Your task to perform on an android device: check google app version Image 0: 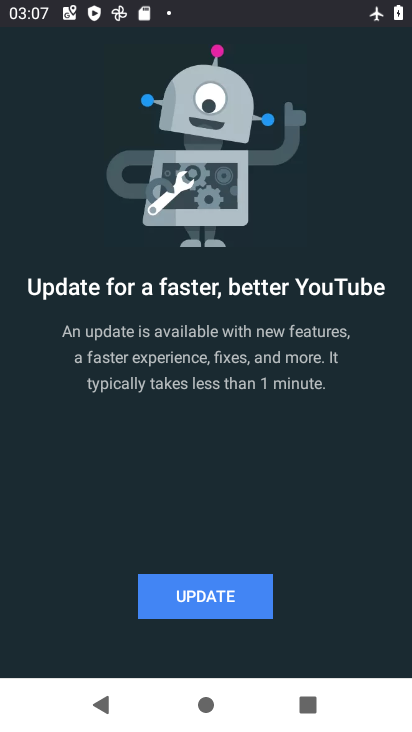
Step 0: drag from (331, 604) to (364, 348)
Your task to perform on an android device: check google app version Image 1: 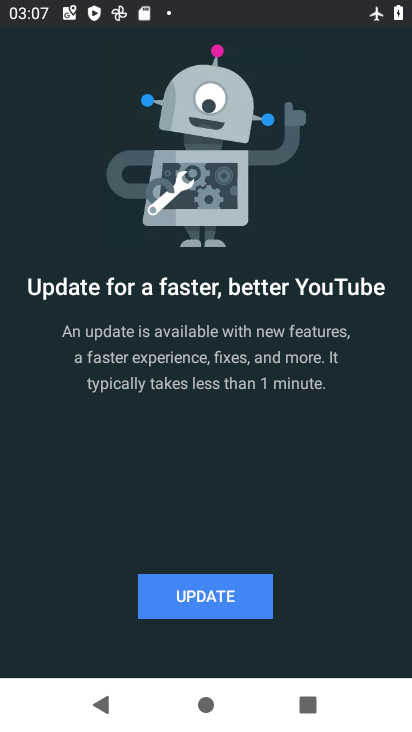
Step 1: drag from (330, 465) to (337, 299)
Your task to perform on an android device: check google app version Image 2: 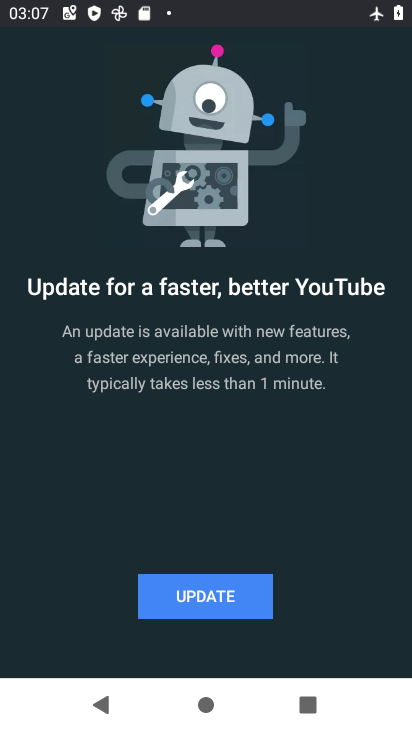
Step 2: press home button
Your task to perform on an android device: check google app version Image 3: 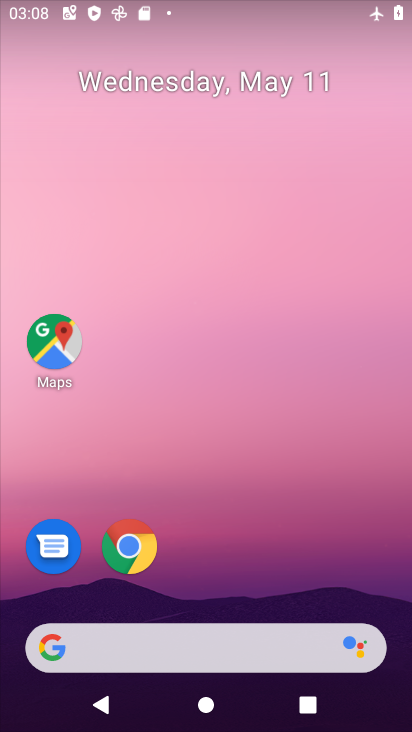
Step 3: drag from (220, 583) to (305, 126)
Your task to perform on an android device: check google app version Image 4: 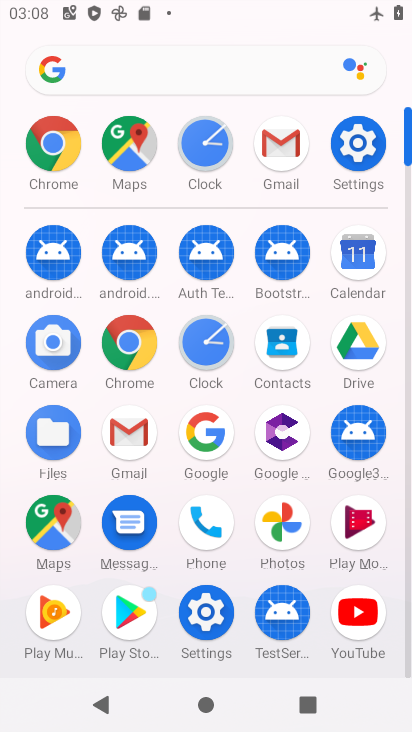
Step 4: click (207, 432)
Your task to perform on an android device: check google app version Image 5: 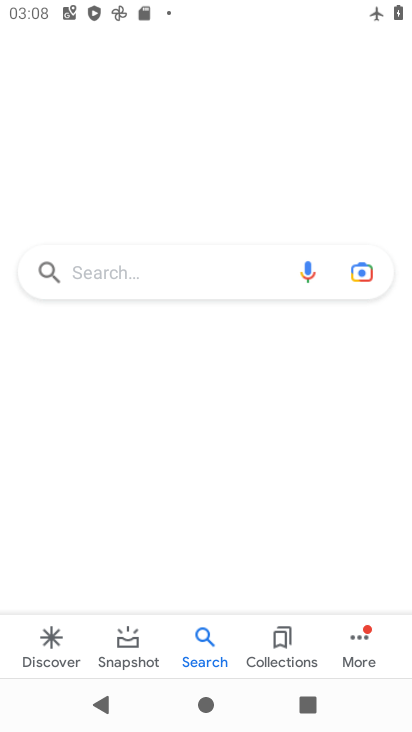
Step 5: drag from (208, 549) to (275, 345)
Your task to perform on an android device: check google app version Image 6: 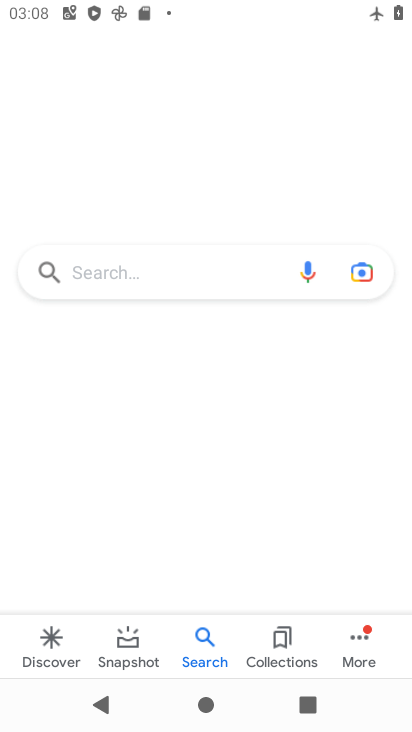
Step 6: drag from (354, 643) to (142, 408)
Your task to perform on an android device: check google app version Image 7: 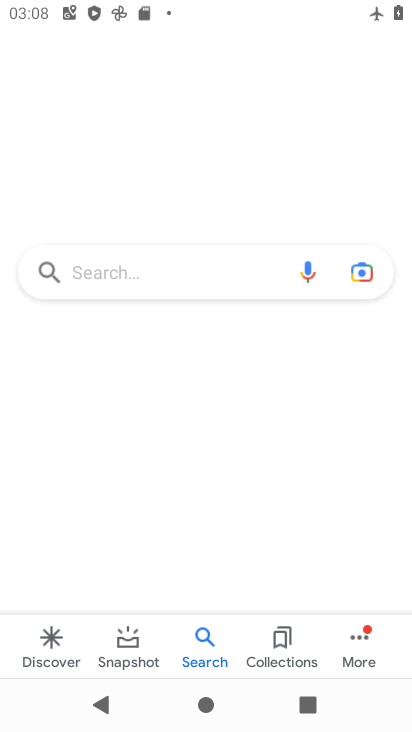
Step 7: click (360, 630)
Your task to perform on an android device: check google app version Image 8: 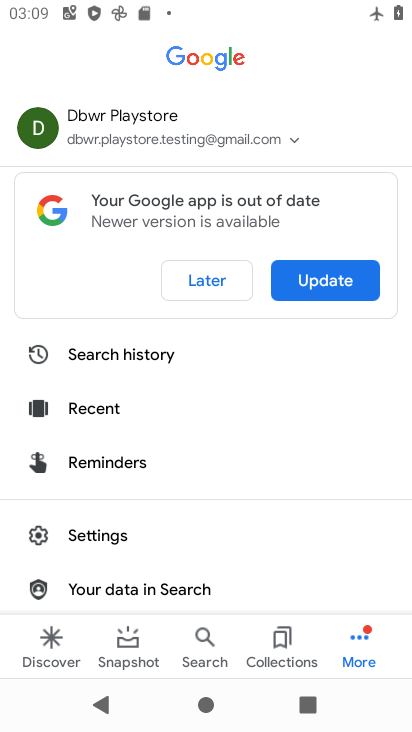
Step 8: drag from (148, 524) to (243, 163)
Your task to perform on an android device: check google app version Image 9: 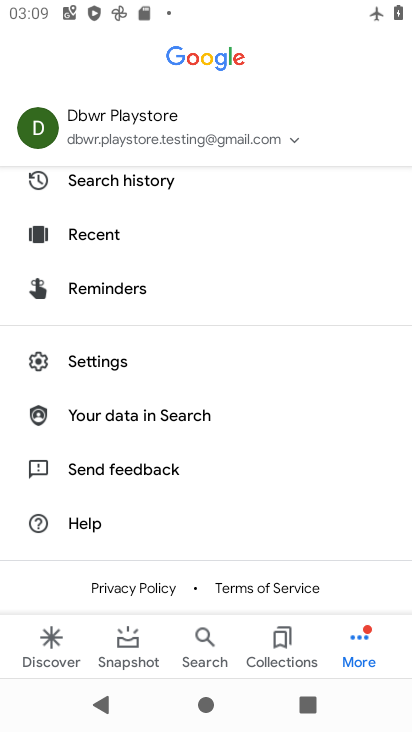
Step 9: click (142, 359)
Your task to perform on an android device: check google app version Image 10: 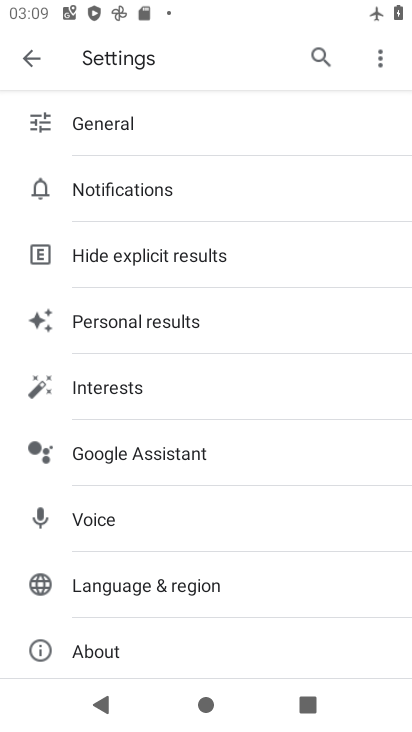
Step 10: drag from (237, 588) to (293, 247)
Your task to perform on an android device: check google app version Image 11: 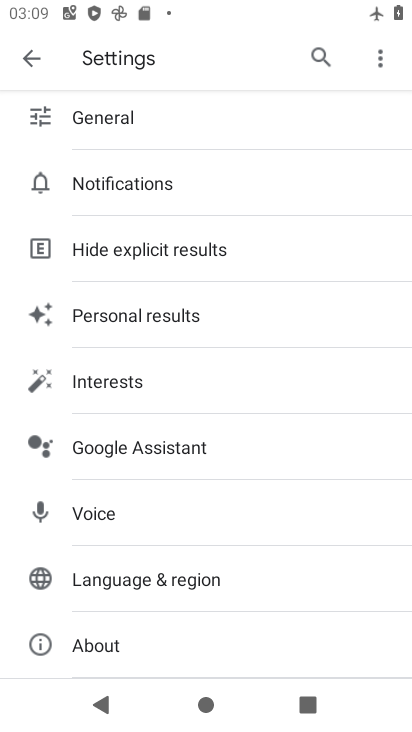
Step 11: click (169, 630)
Your task to perform on an android device: check google app version Image 12: 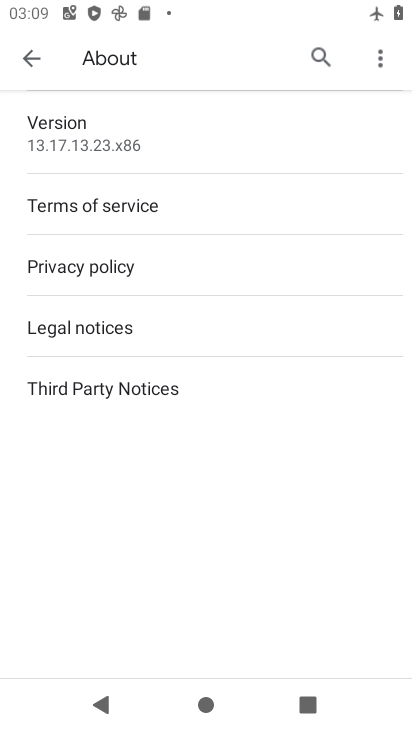
Step 12: click (165, 131)
Your task to perform on an android device: check google app version Image 13: 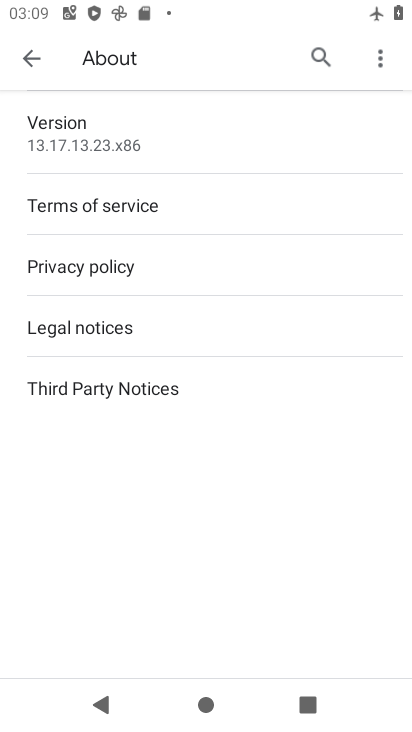
Step 13: click (165, 131)
Your task to perform on an android device: check google app version Image 14: 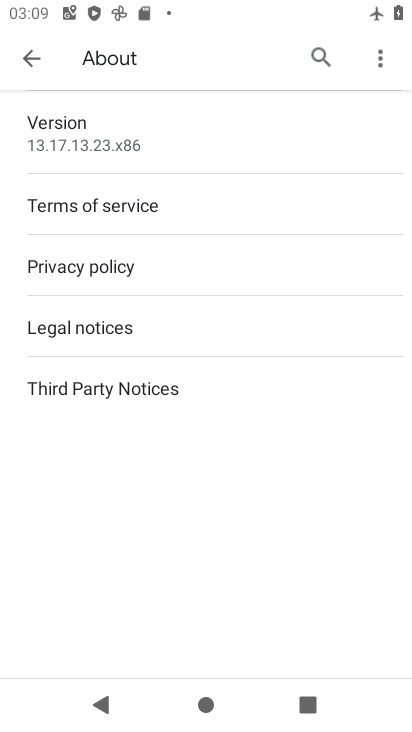
Step 14: task complete